Your task to perform on an android device: Open eBay Image 0: 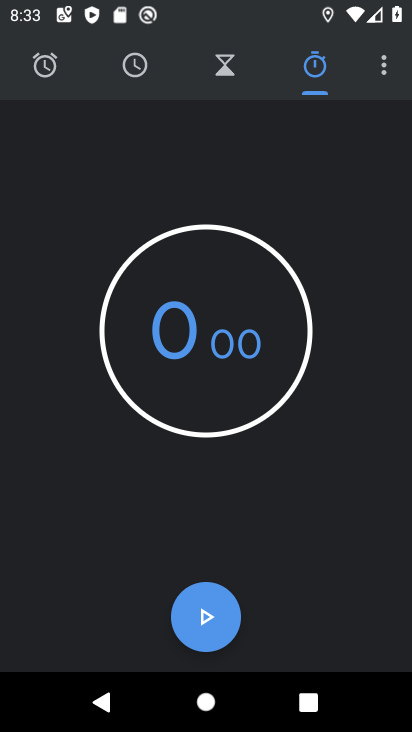
Step 0: press home button
Your task to perform on an android device: Open eBay Image 1: 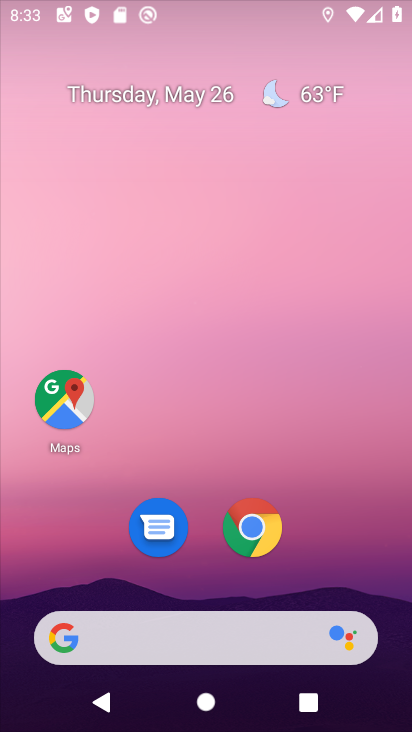
Step 1: drag from (313, 454) to (350, 12)
Your task to perform on an android device: Open eBay Image 2: 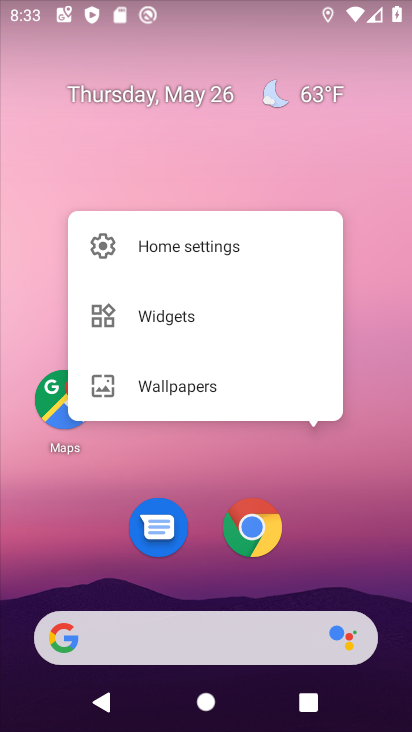
Step 2: click (345, 511)
Your task to perform on an android device: Open eBay Image 3: 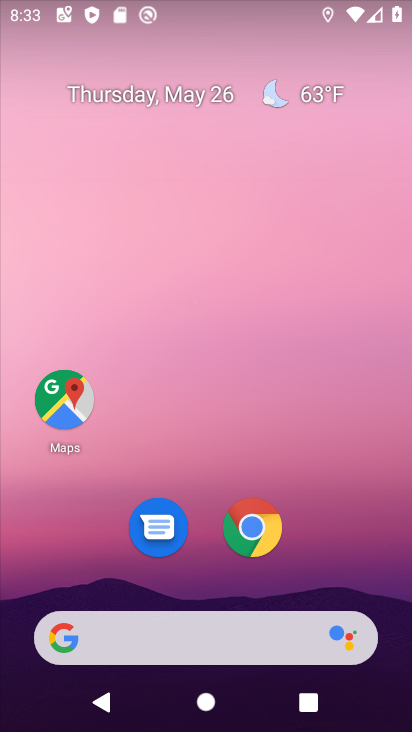
Step 3: drag from (353, 470) to (339, 98)
Your task to perform on an android device: Open eBay Image 4: 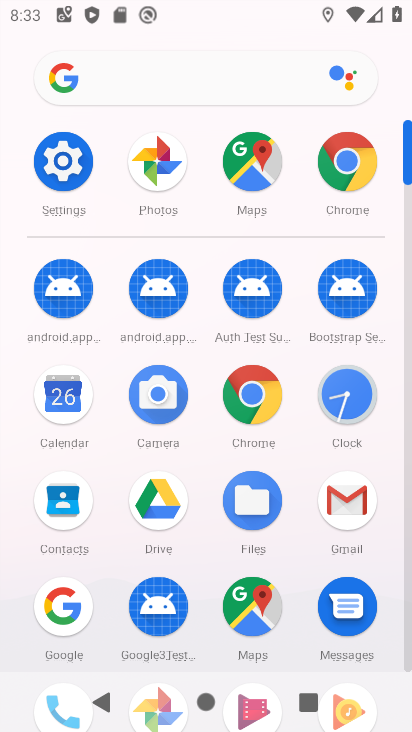
Step 4: click (336, 165)
Your task to perform on an android device: Open eBay Image 5: 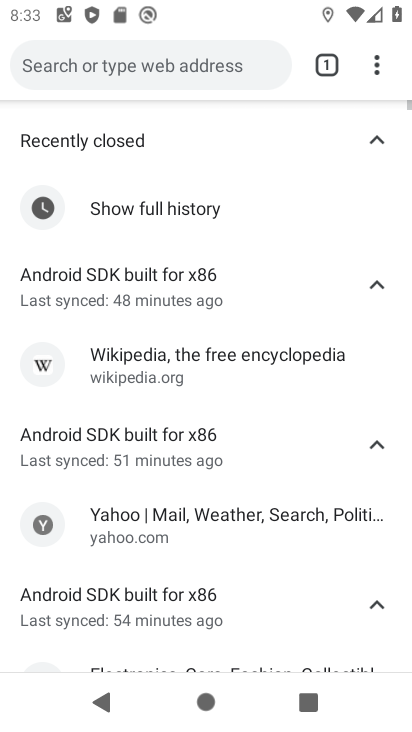
Step 5: click (190, 63)
Your task to perform on an android device: Open eBay Image 6: 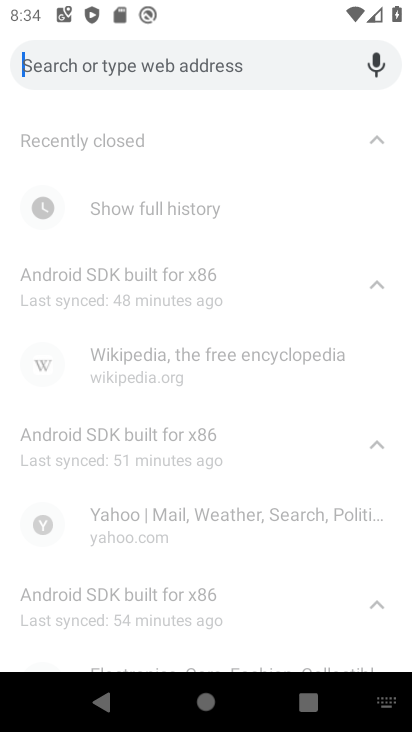
Step 6: type "ebay"
Your task to perform on an android device: Open eBay Image 7: 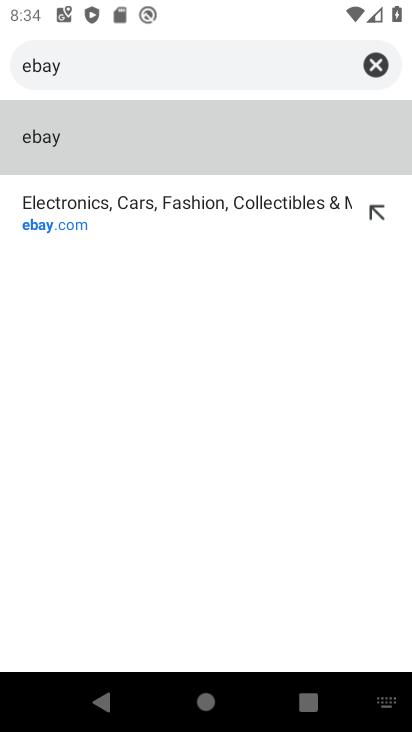
Step 7: click (74, 215)
Your task to perform on an android device: Open eBay Image 8: 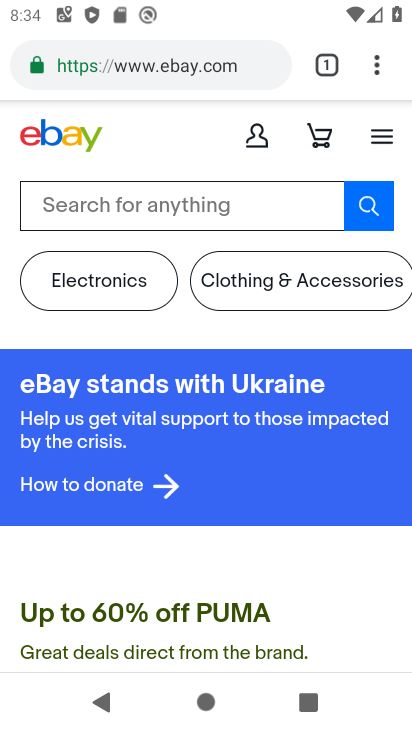
Step 8: task complete